Your task to perform on an android device: Open Wikipedia Image 0: 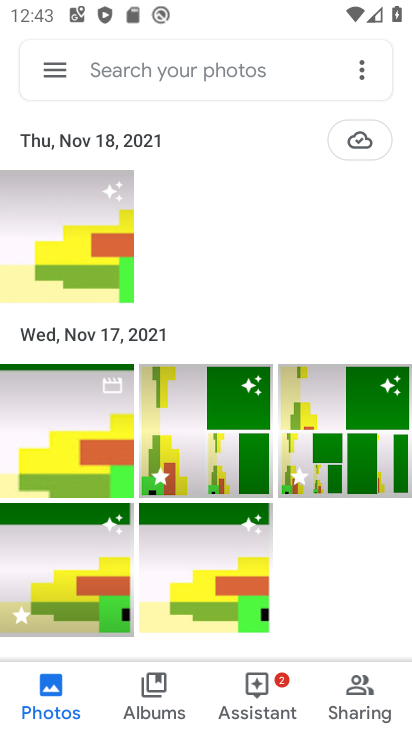
Step 0: press home button
Your task to perform on an android device: Open Wikipedia Image 1: 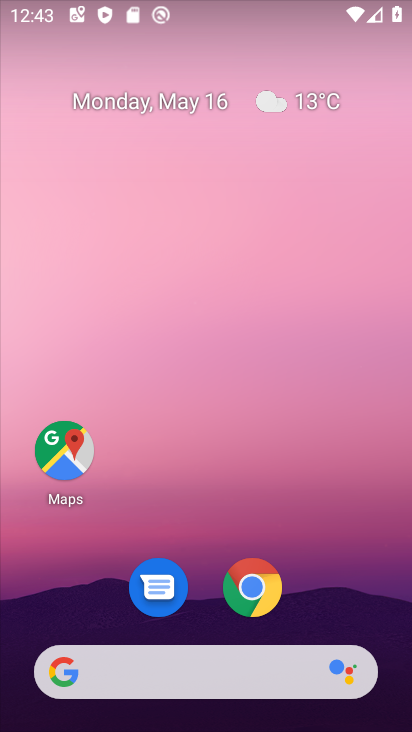
Step 1: click (253, 589)
Your task to perform on an android device: Open Wikipedia Image 2: 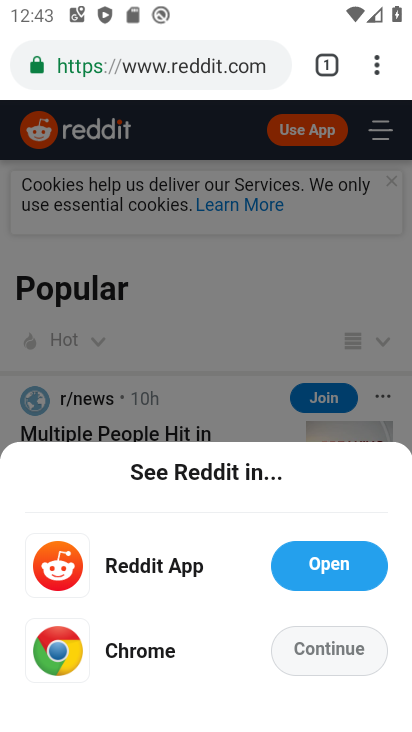
Step 2: click (378, 74)
Your task to perform on an android device: Open Wikipedia Image 3: 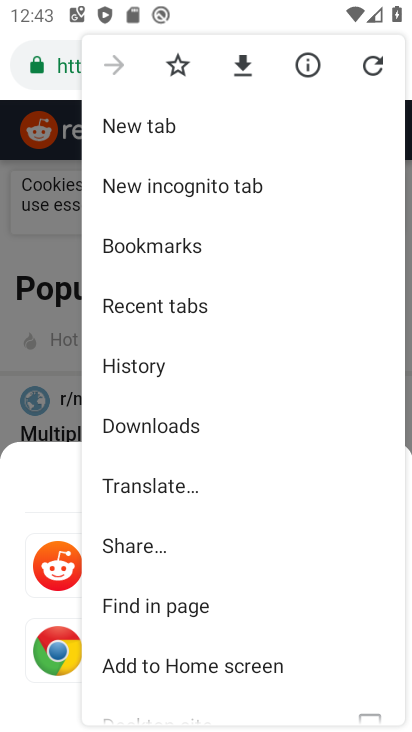
Step 3: click (154, 127)
Your task to perform on an android device: Open Wikipedia Image 4: 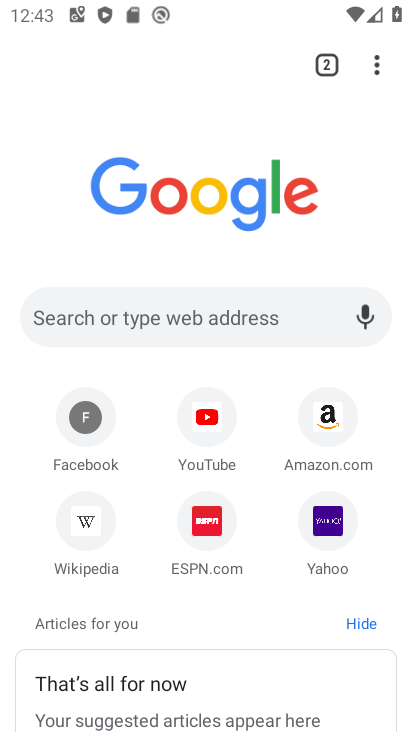
Step 4: click (201, 310)
Your task to perform on an android device: Open Wikipedia Image 5: 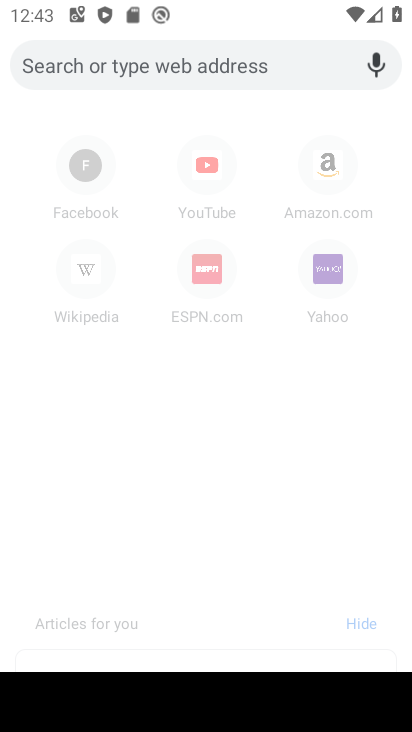
Step 5: type "Wikipedia"
Your task to perform on an android device: Open Wikipedia Image 6: 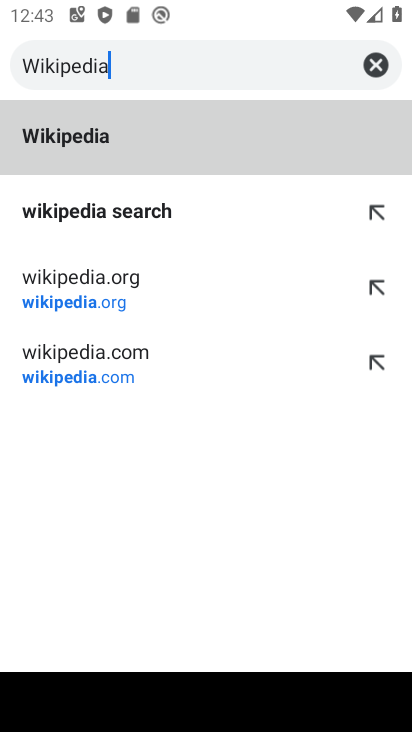
Step 6: click (86, 131)
Your task to perform on an android device: Open Wikipedia Image 7: 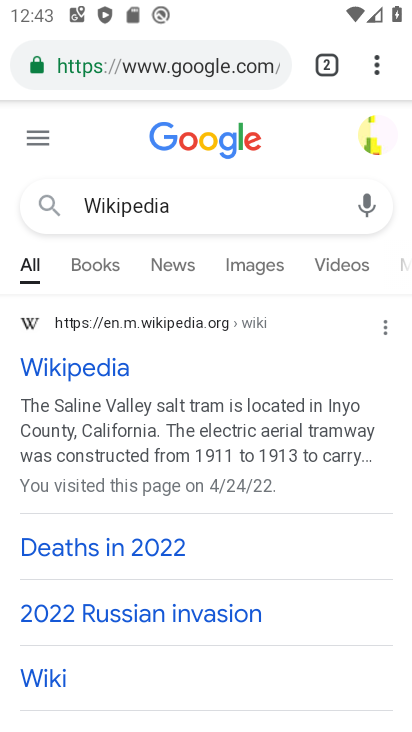
Step 7: click (84, 366)
Your task to perform on an android device: Open Wikipedia Image 8: 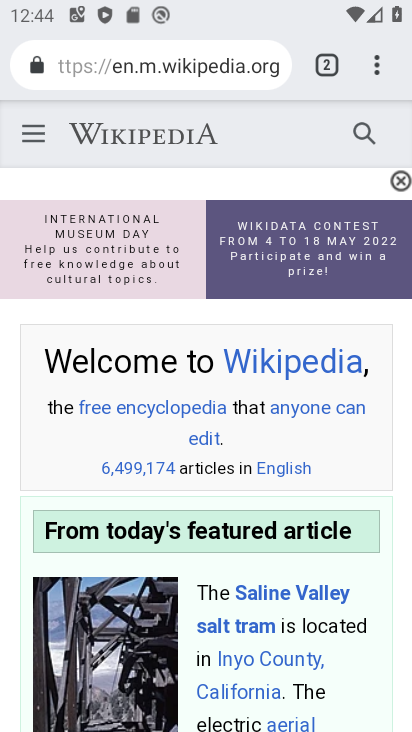
Step 8: task complete